Your task to perform on an android device: create a new album in the google photos Image 0: 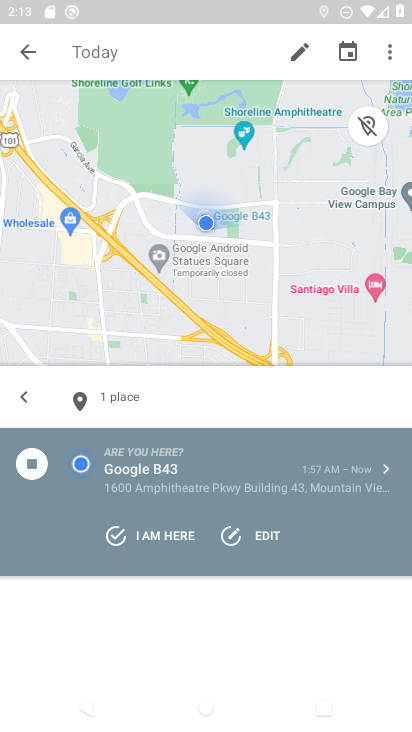
Step 0: press home button
Your task to perform on an android device: create a new album in the google photos Image 1: 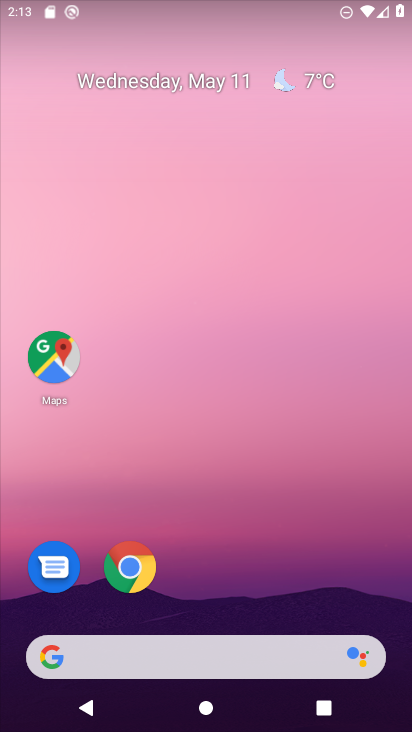
Step 1: drag from (345, 504) to (286, 175)
Your task to perform on an android device: create a new album in the google photos Image 2: 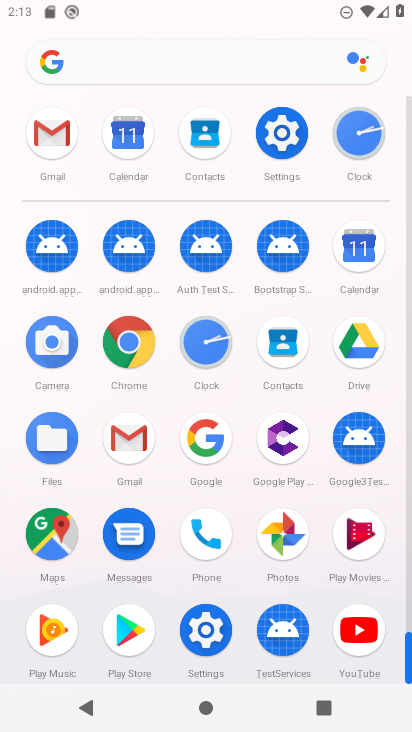
Step 2: click (275, 537)
Your task to perform on an android device: create a new album in the google photos Image 3: 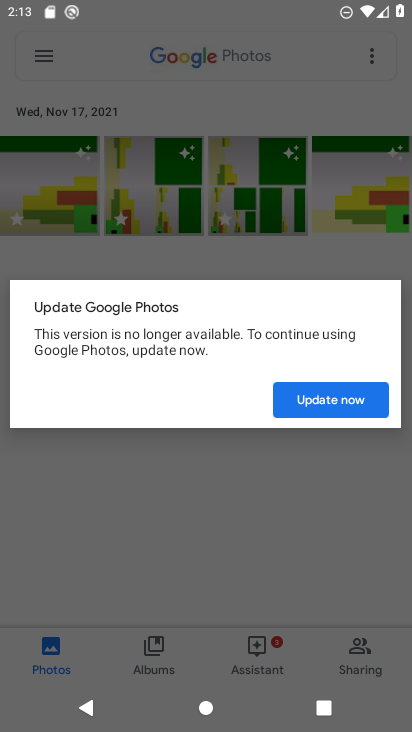
Step 3: click (318, 408)
Your task to perform on an android device: create a new album in the google photos Image 4: 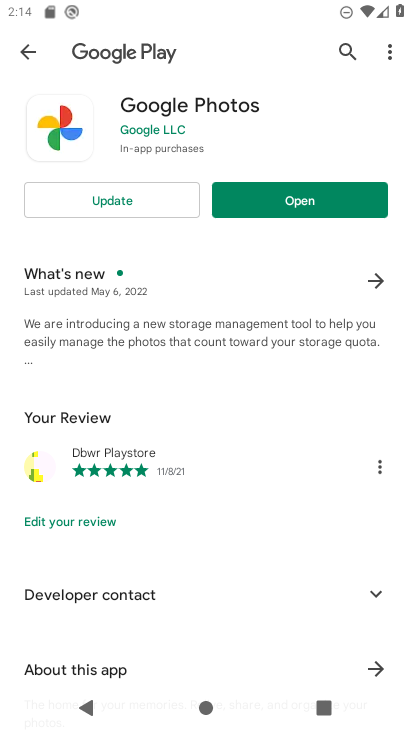
Step 4: click (277, 210)
Your task to perform on an android device: create a new album in the google photos Image 5: 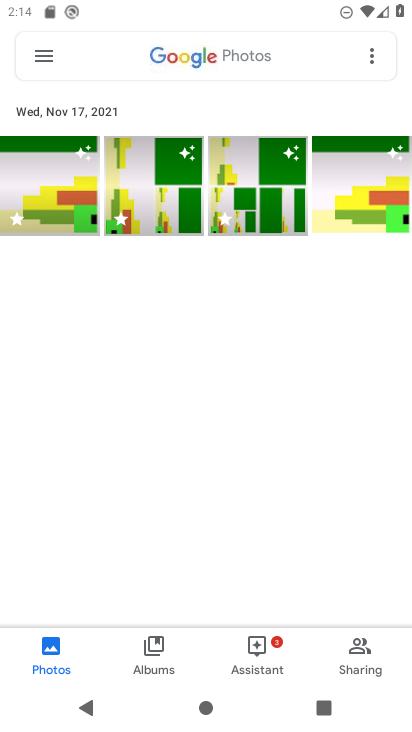
Step 5: click (82, 215)
Your task to perform on an android device: create a new album in the google photos Image 6: 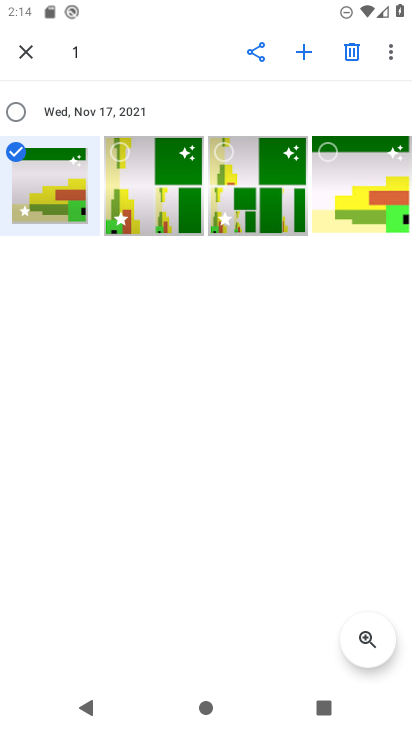
Step 6: click (145, 179)
Your task to perform on an android device: create a new album in the google photos Image 7: 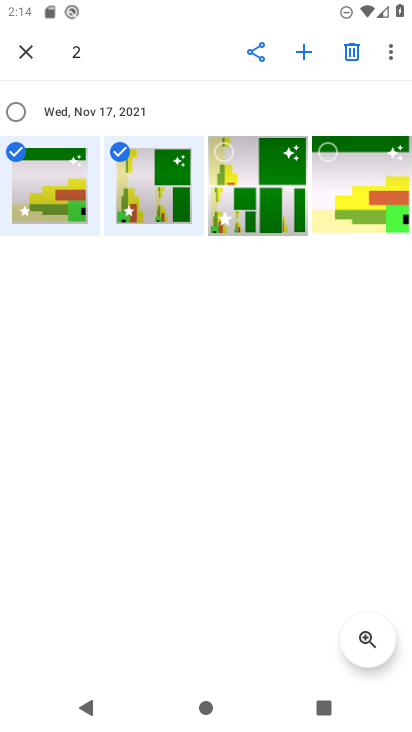
Step 7: click (300, 50)
Your task to perform on an android device: create a new album in the google photos Image 8: 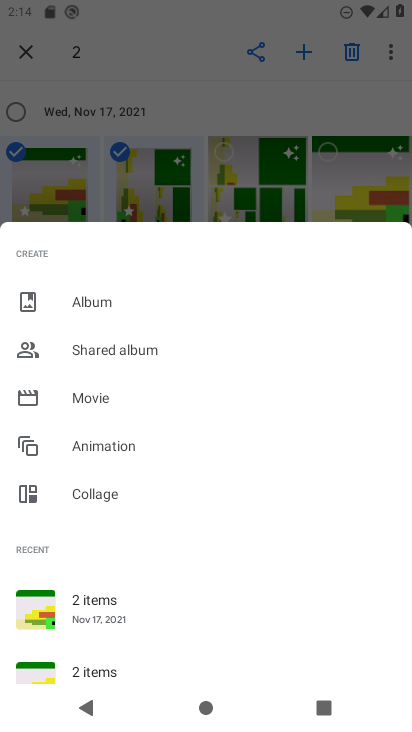
Step 8: click (121, 306)
Your task to perform on an android device: create a new album in the google photos Image 9: 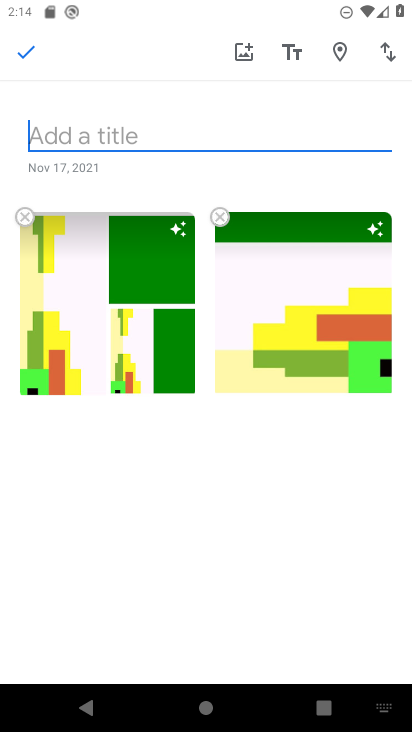
Step 9: type "ggg"
Your task to perform on an android device: create a new album in the google photos Image 10: 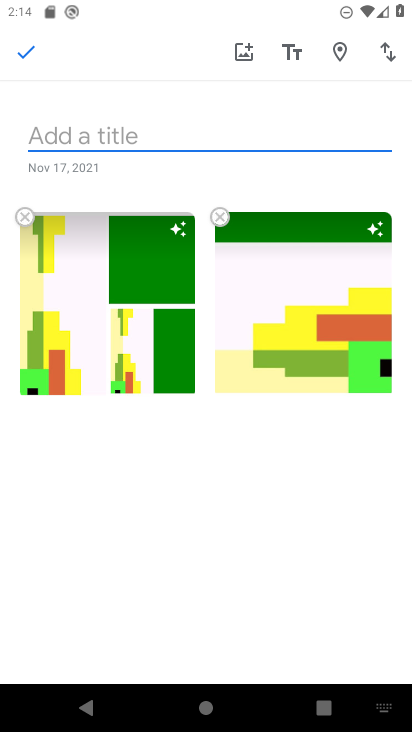
Step 10: click (29, 50)
Your task to perform on an android device: create a new album in the google photos Image 11: 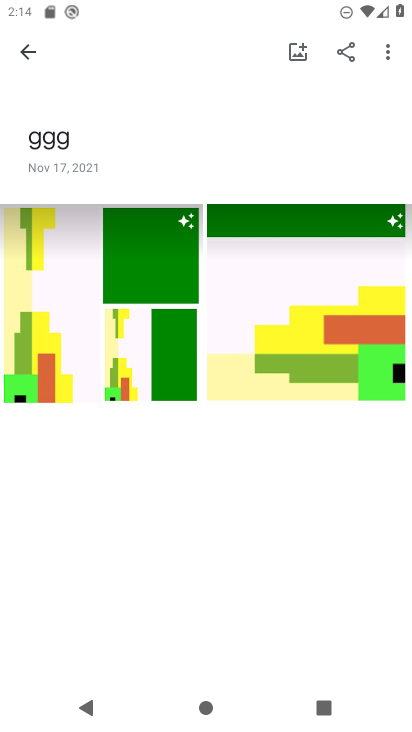
Step 11: task complete